Your task to perform on an android device: add a label to a message in the gmail app Image 0: 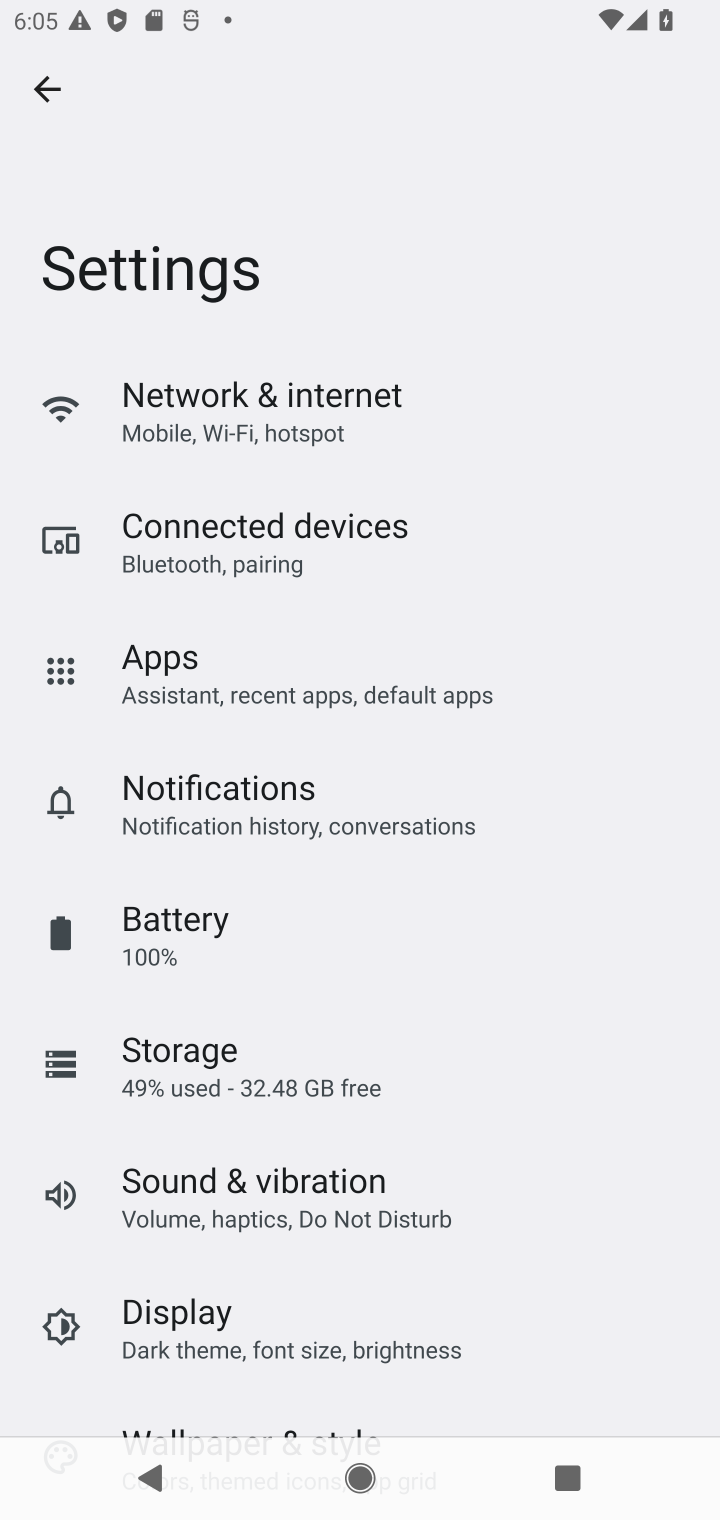
Step 0: drag from (354, 994) to (389, 518)
Your task to perform on an android device: add a label to a message in the gmail app Image 1: 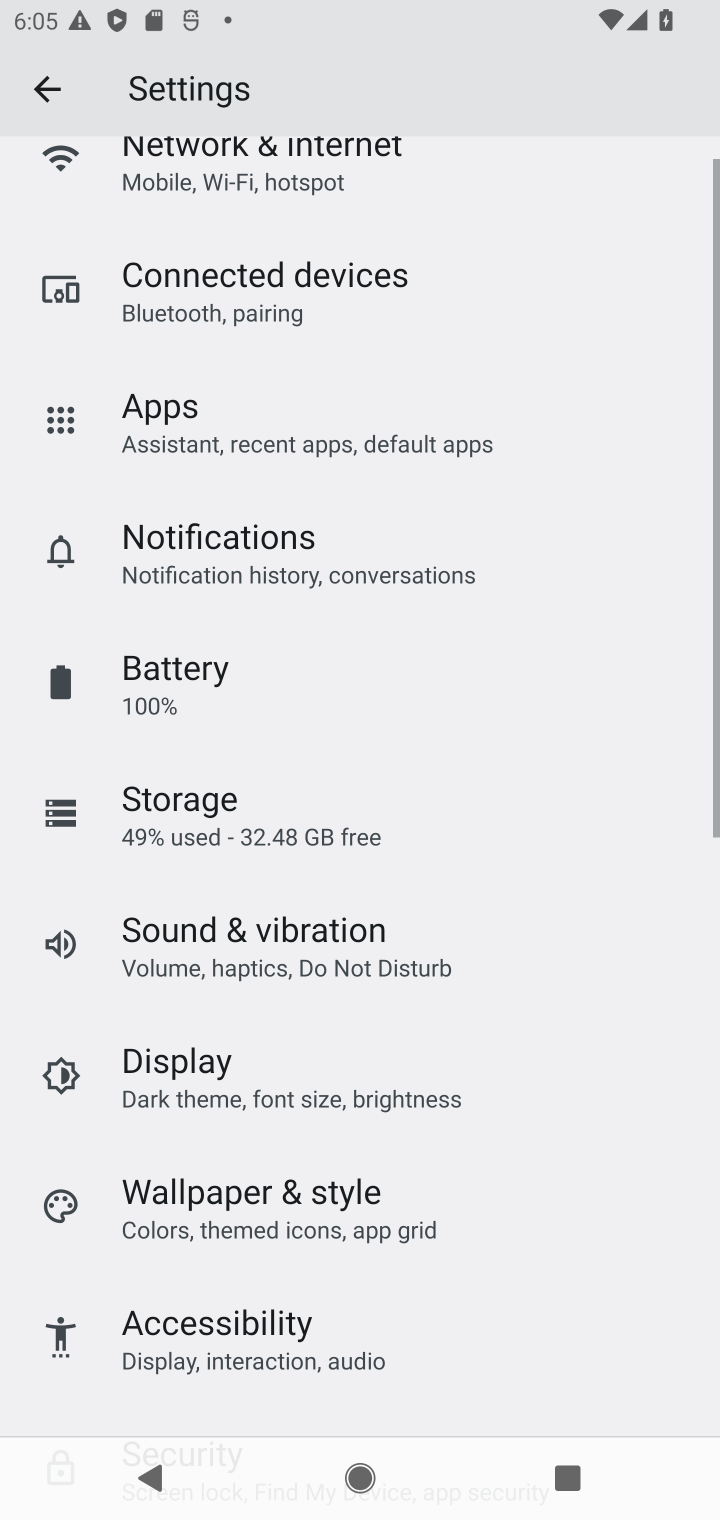
Step 1: press home button
Your task to perform on an android device: add a label to a message in the gmail app Image 2: 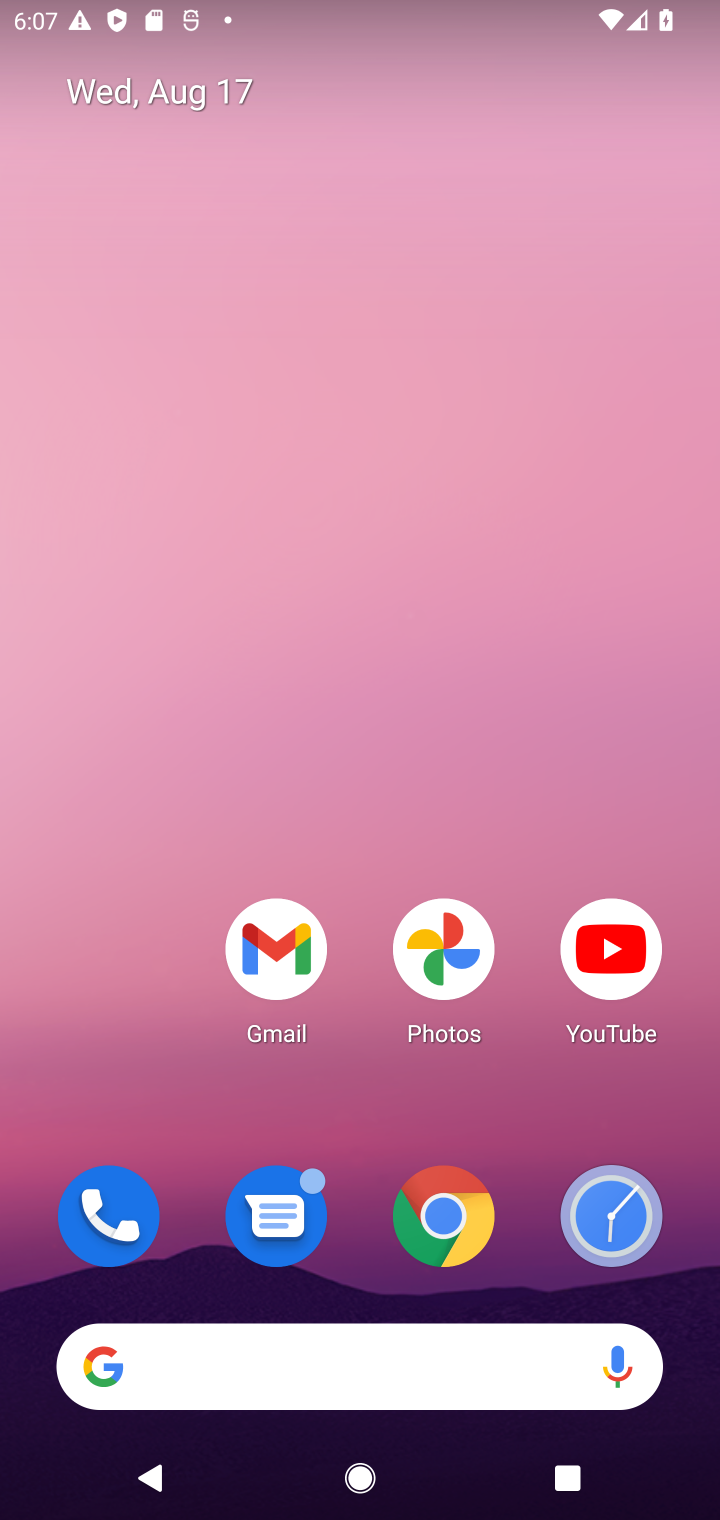
Step 2: drag from (495, 978) to (345, 2)
Your task to perform on an android device: add a label to a message in the gmail app Image 3: 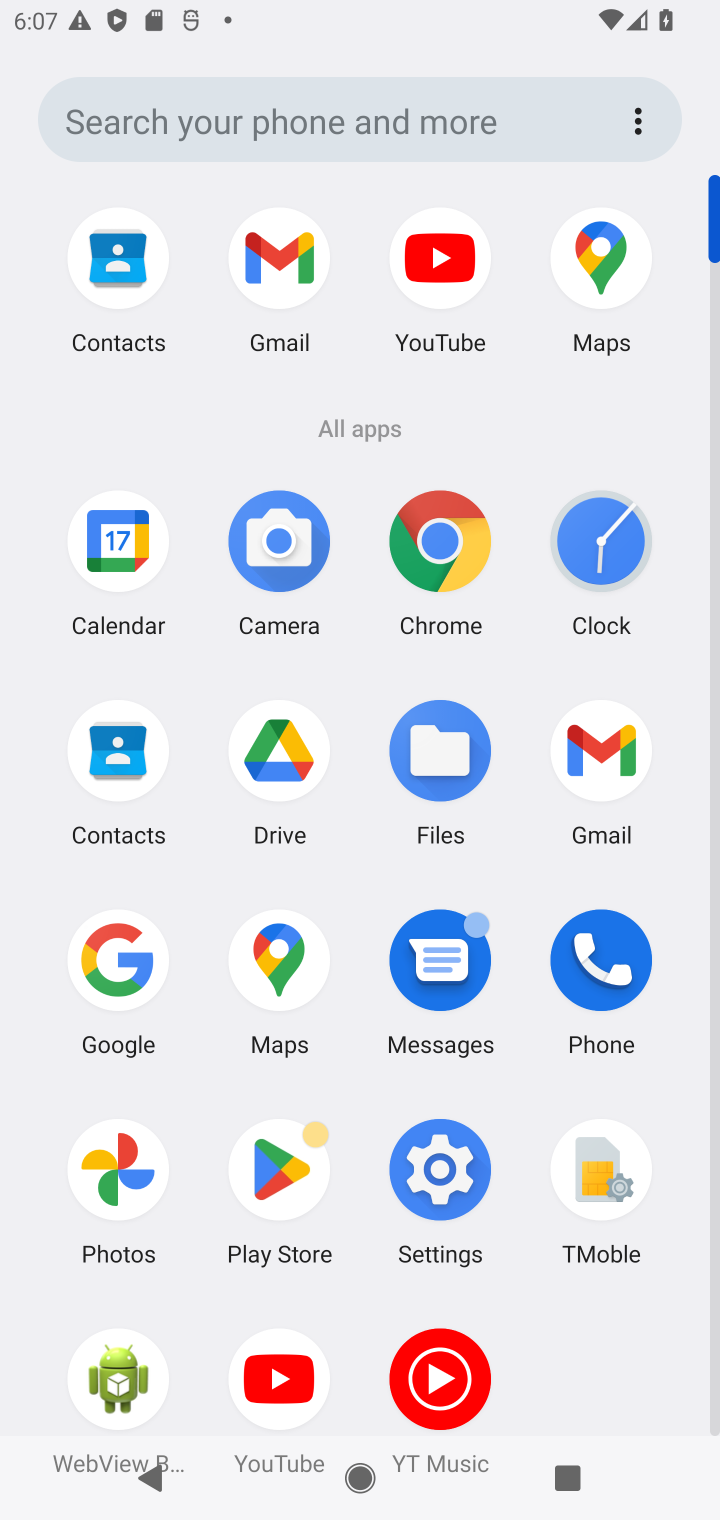
Step 3: click (600, 748)
Your task to perform on an android device: add a label to a message in the gmail app Image 4: 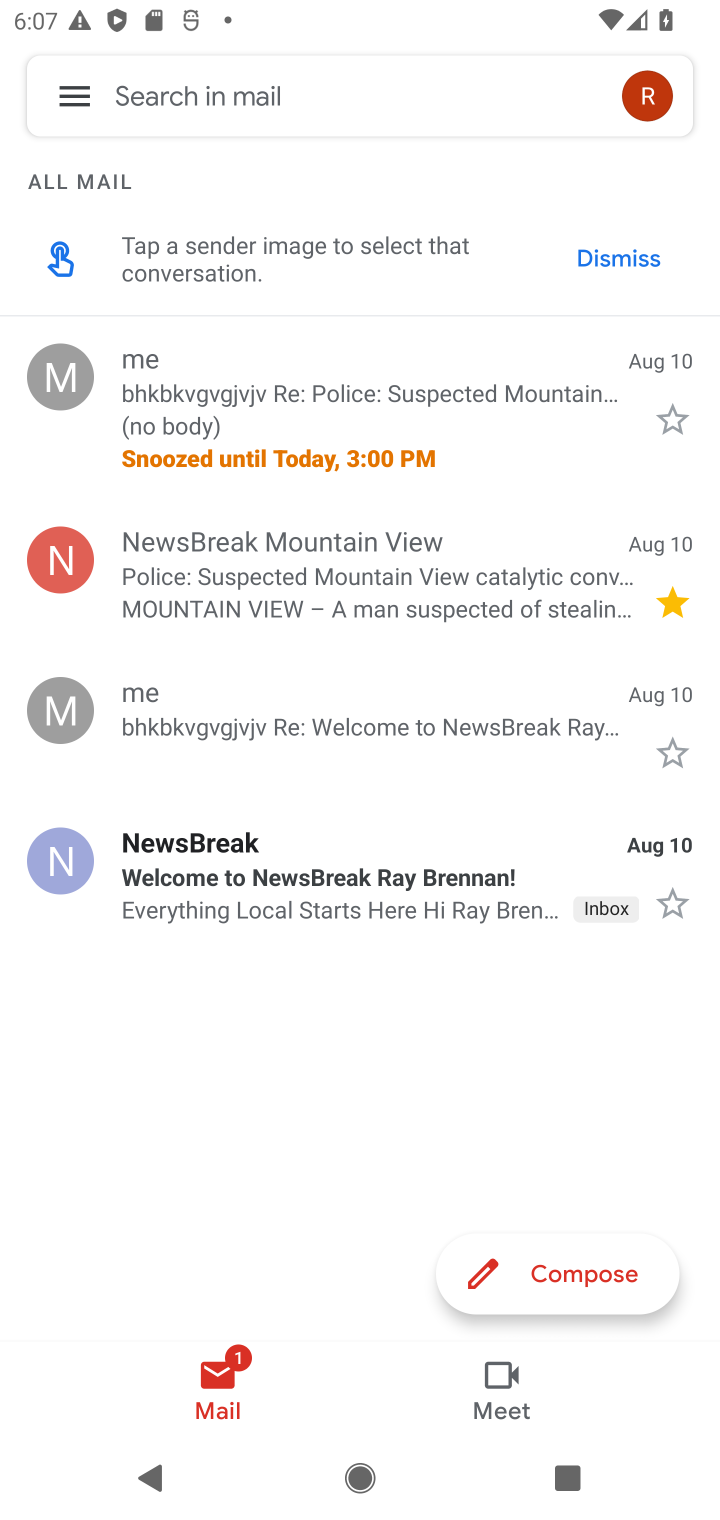
Step 4: task complete